Your task to perform on an android device: toggle location history Image 0: 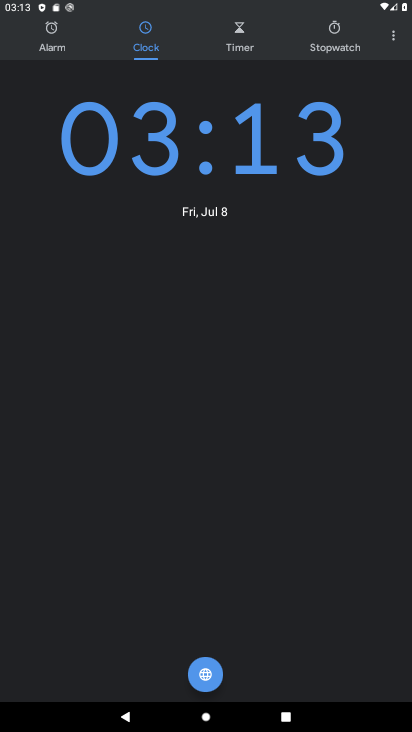
Step 0: press home button
Your task to perform on an android device: toggle location history Image 1: 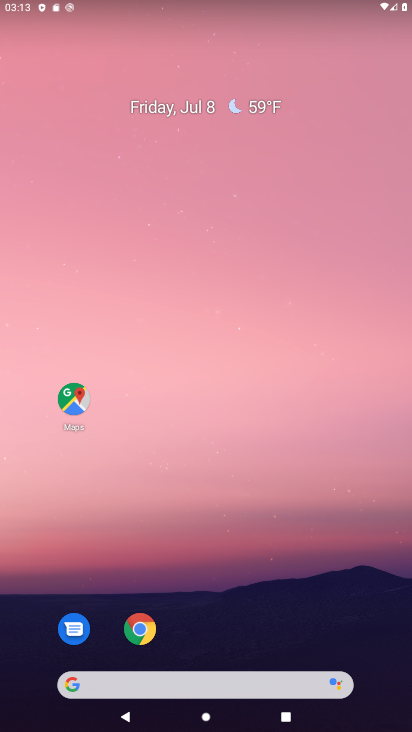
Step 1: drag from (215, 657) to (278, 53)
Your task to perform on an android device: toggle location history Image 2: 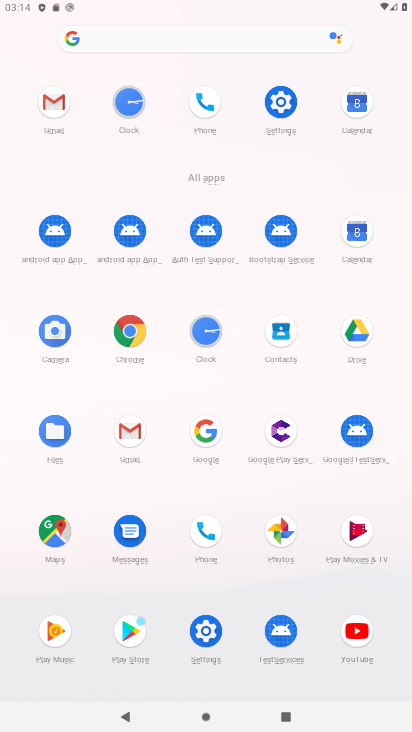
Step 2: click (280, 96)
Your task to perform on an android device: toggle location history Image 3: 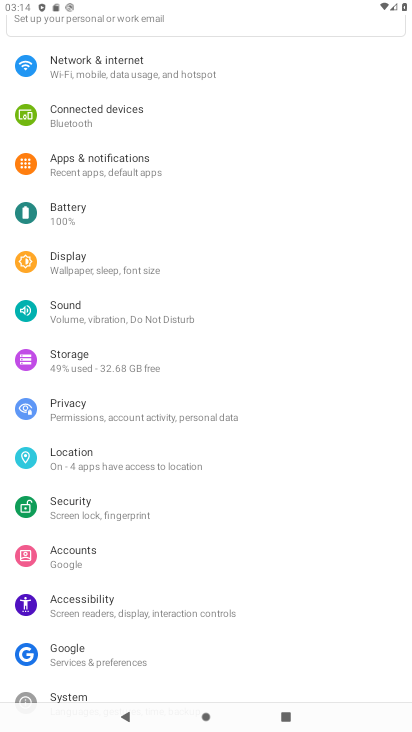
Step 3: click (99, 450)
Your task to perform on an android device: toggle location history Image 4: 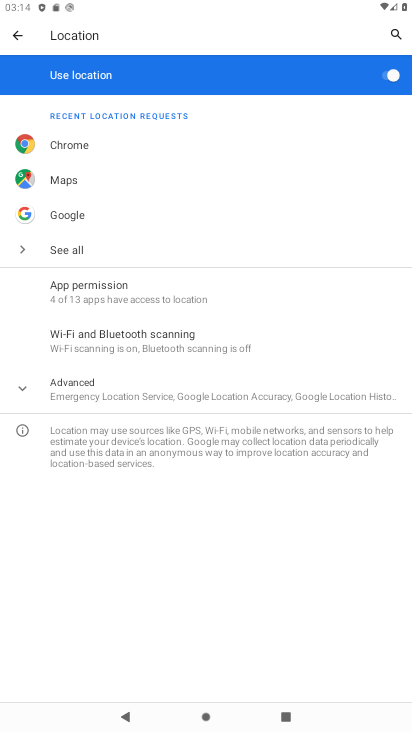
Step 4: click (27, 392)
Your task to perform on an android device: toggle location history Image 5: 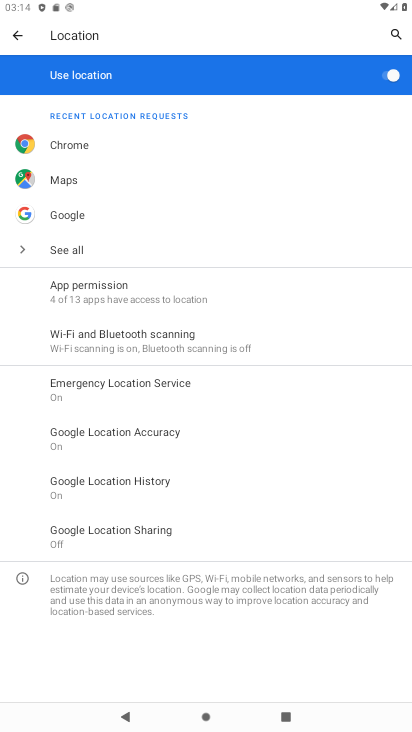
Step 5: click (143, 487)
Your task to perform on an android device: toggle location history Image 6: 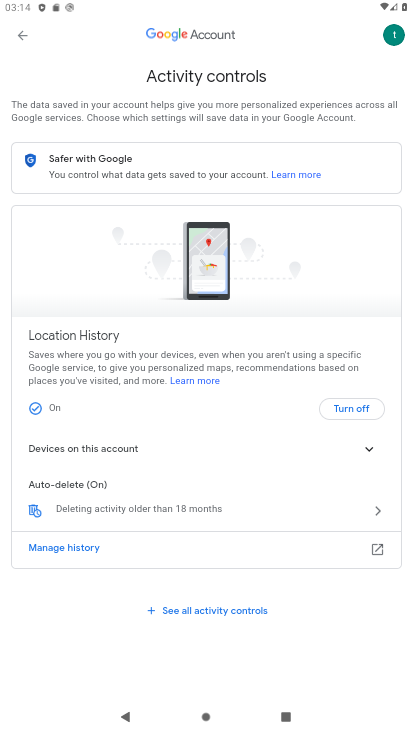
Step 6: task complete